Your task to perform on an android device: Open maps Image 0: 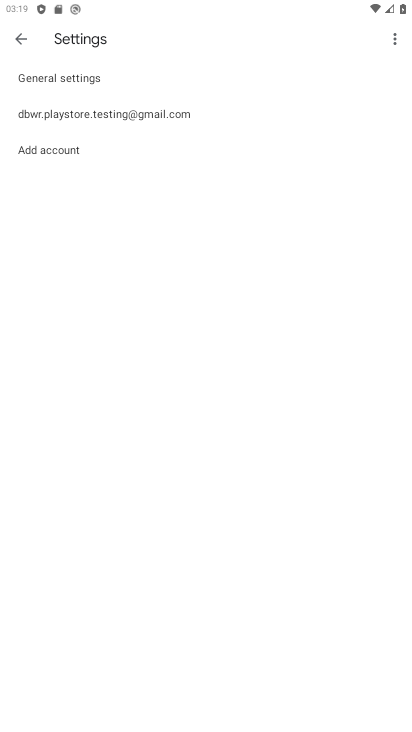
Step 0: press home button
Your task to perform on an android device: Open maps Image 1: 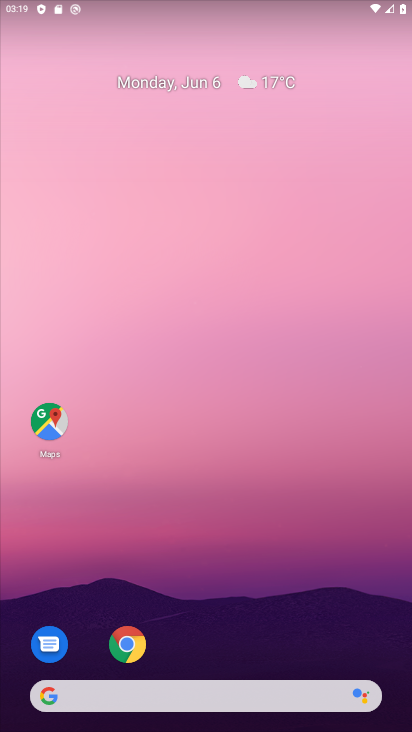
Step 1: click (58, 418)
Your task to perform on an android device: Open maps Image 2: 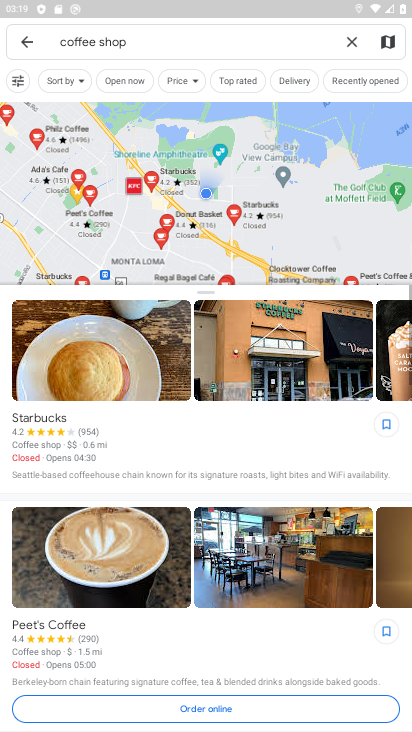
Step 2: click (27, 42)
Your task to perform on an android device: Open maps Image 3: 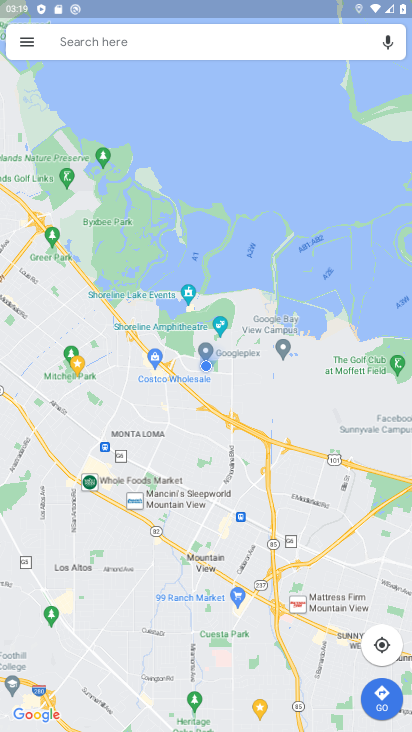
Step 3: task complete